Your task to perform on an android device: Search for vegetarian restaurants on Maps Image 0: 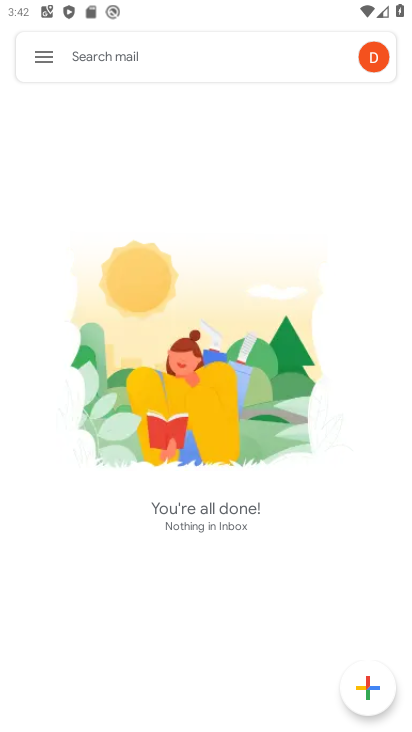
Step 0: press home button
Your task to perform on an android device: Search for vegetarian restaurants on Maps Image 1: 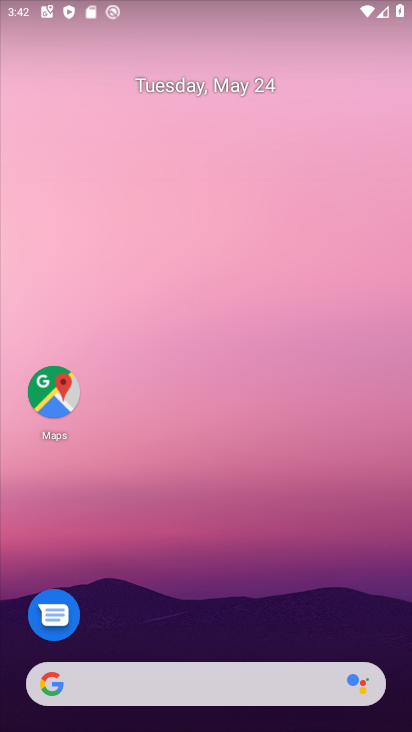
Step 1: click (43, 408)
Your task to perform on an android device: Search for vegetarian restaurants on Maps Image 2: 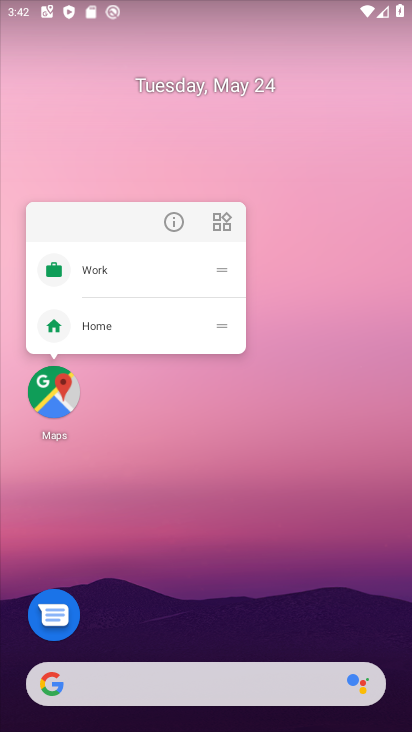
Step 2: click (46, 402)
Your task to perform on an android device: Search for vegetarian restaurants on Maps Image 3: 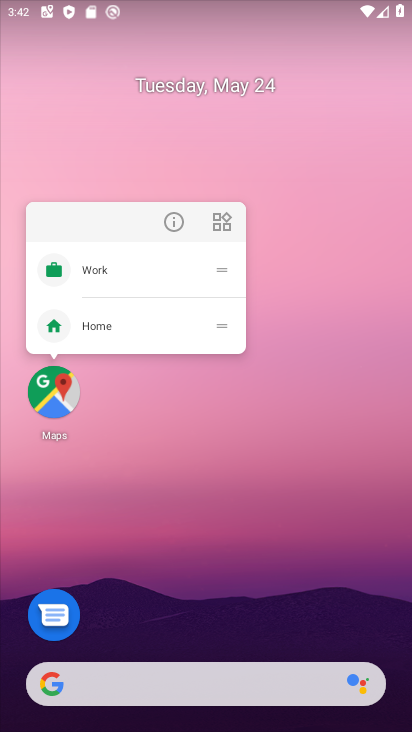
Step 3: click (54, 395)
Your task to perform on an android device: Search for vegetarian restaurants on Maps Image 4: 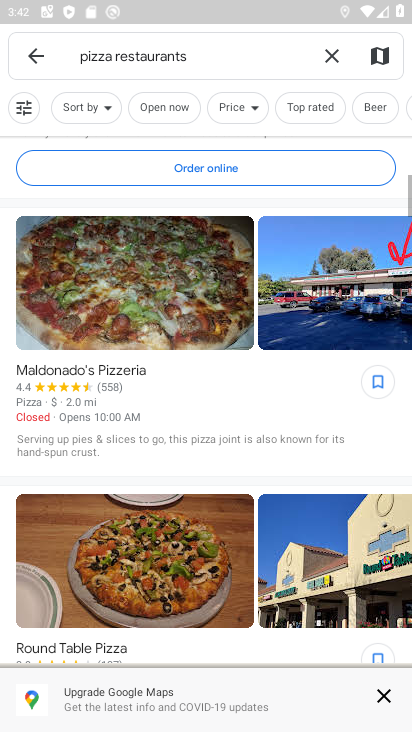
Step 4: click (332, 58)
Your task to perform on an android device: Search for vegetarian restaurants on Maps Image 5: 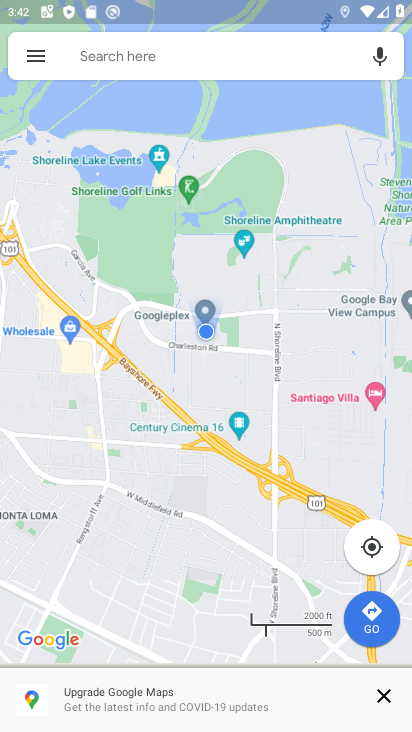
Step 5: click (212, 71)
Your task to perform on an android device: Search for vegetarian restaurants on Maps Image 6: 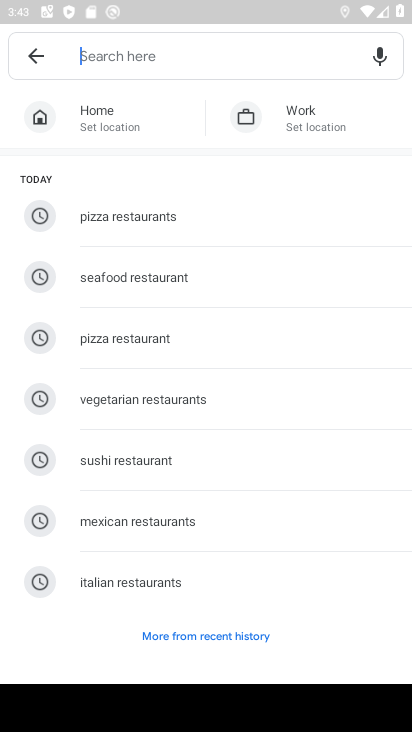
Step 6: type "Vegetarian restaurants"
Your task to perform on an android device: Search for vegetarian restaurants on Maps Image 7: 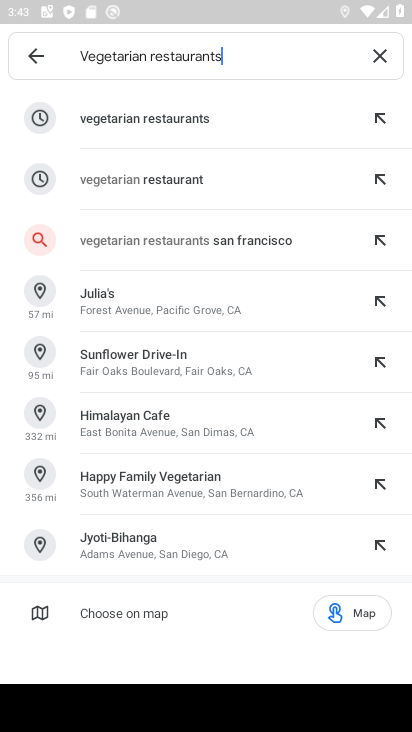
Step 7: click (210, 116)
Your task to perform on an android device: Search for vegetarian restaurants on Maps Image 8: 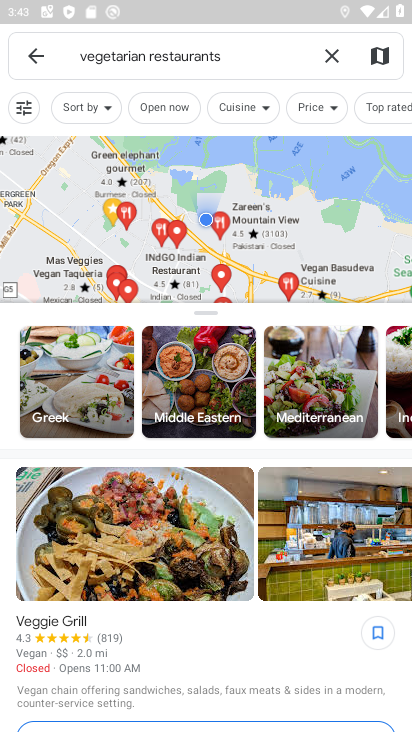
Step 8: task complete